Your task to perform on an android device: Play the last video I watched on Youtube Image 0: 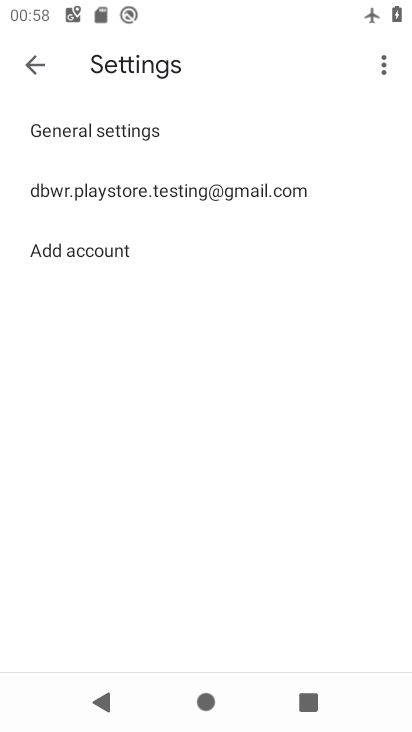
Step 0: press home button
Your task to perform on an android device: Play the last video I watched on Youtube Image 1: 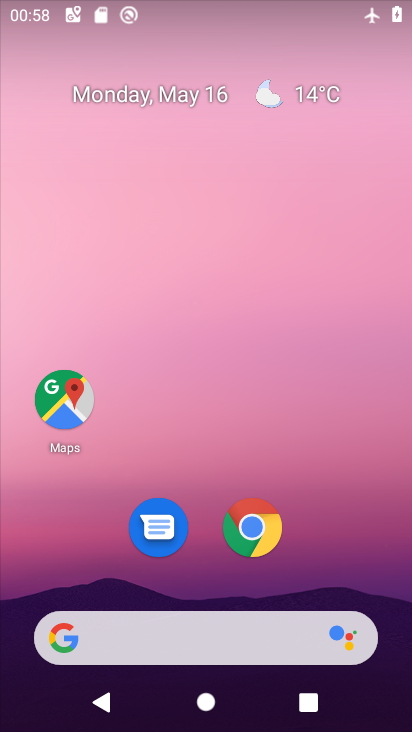
Step 1: drag from (225, 588) to (253, 112)
Your task to perform on an android device: Play the last video I watched on Youtube Image 2: 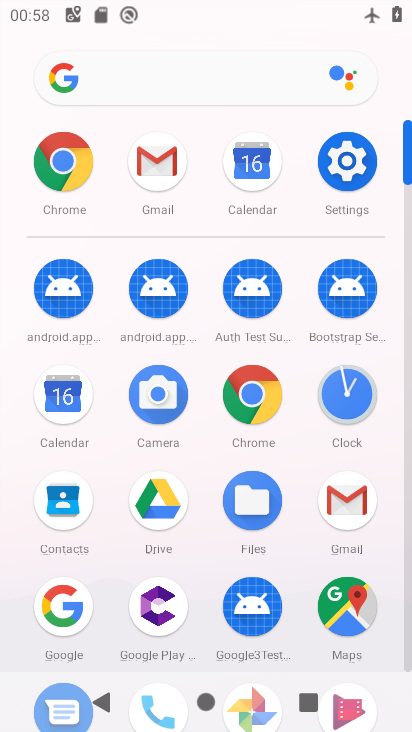
Step 2: drag from (262, 561) to (340, 104)
Your task to perform on an android device: Play the last video I watched on Youtube Image 3: 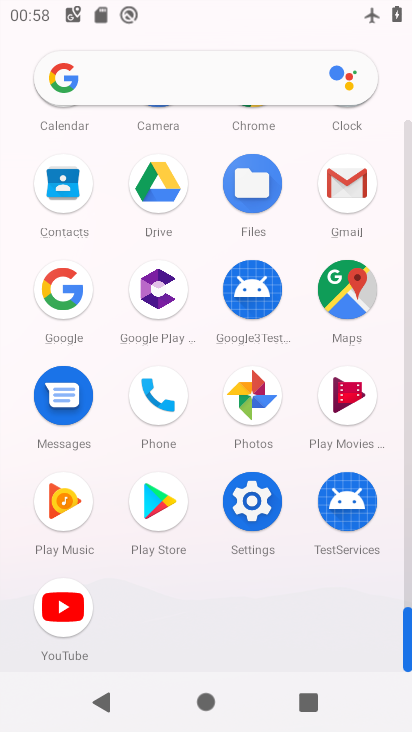
Step 3: click (74, 612)
Your task to perform on an android device: Play the last video I watched on Youtube Image 4: 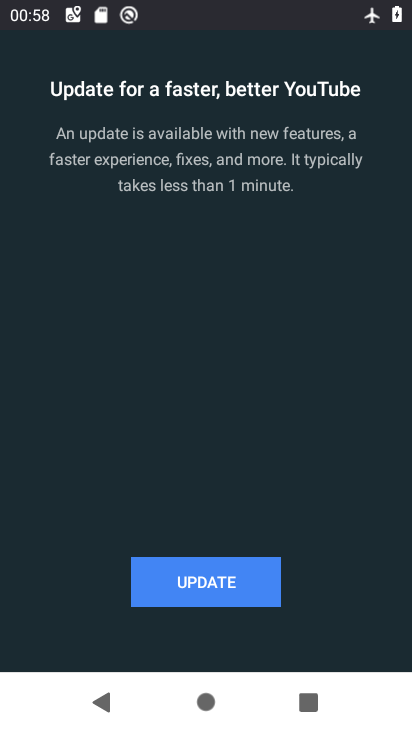
Step 4: click (255, 586)
Your task to perform on an android device: Play the last video I watched on Youtube Image 5: 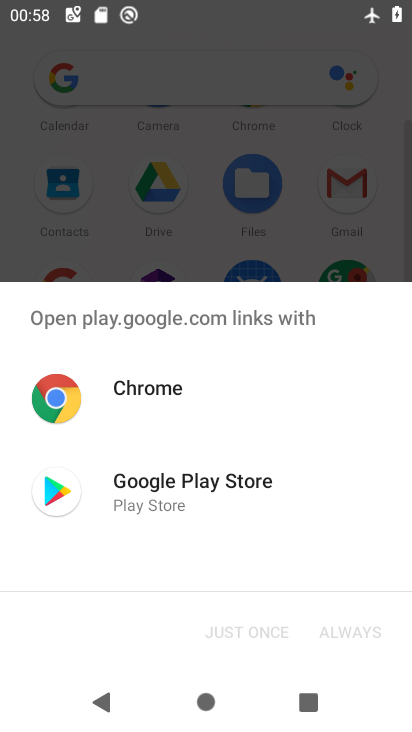
Step 5: click (141, 497)
Your task to perform on an android device: Play the last video I watched on Youtube Image 6: 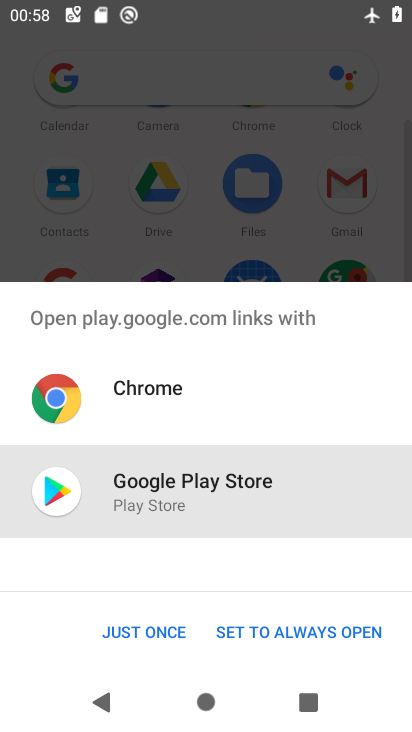
Step 6: click (143, 630)
Your task to perform on an android device: Play the last video I watched on Youtube Image 7: 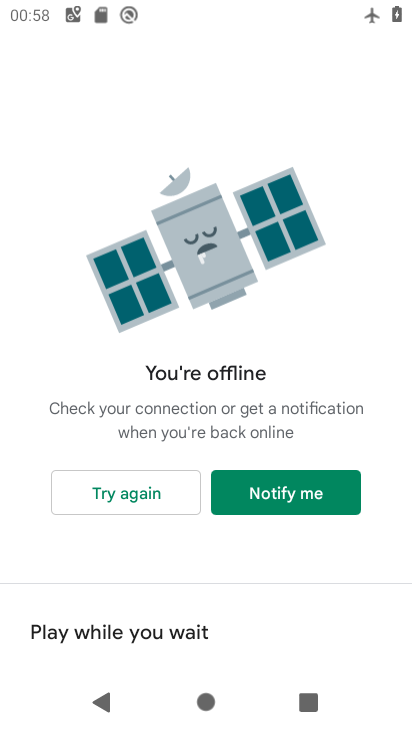
Step 7: task complete